Your task to perform on an android device: When is my next meeting? Image 0: 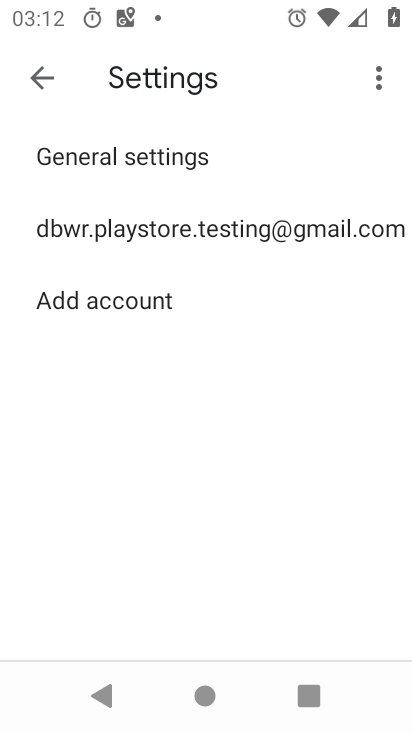
Step 0: press home button
Your task to perform on an android device: When is my next meeting? Image 1: 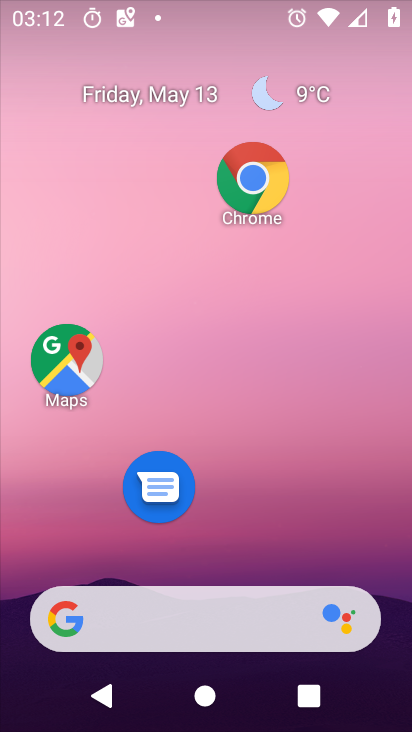
Step 1: drag from (299, 528) to (283, 96)
Your task to perform on an android device: When is my next meeting? Image 2: 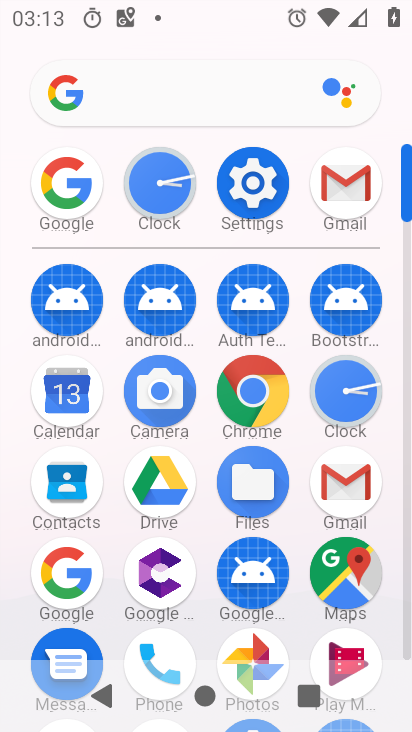
Step 2: click (66, 397)
Your task to perform on an android device: When is my next meeting? Image 3: 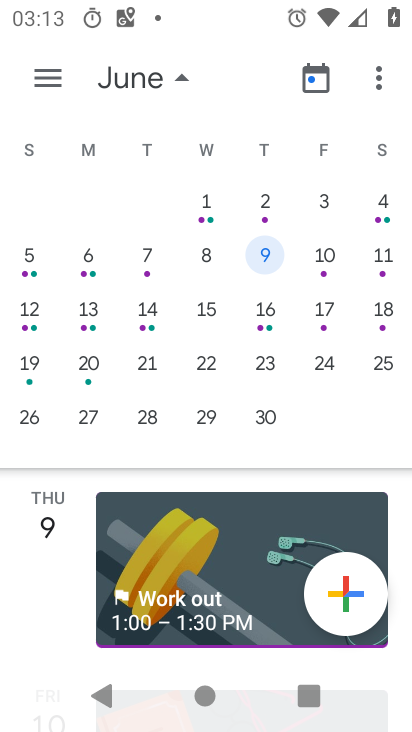
Step 3: click (258, 311)
Your task to perform on an android device: When is my next meeting? Image 4: 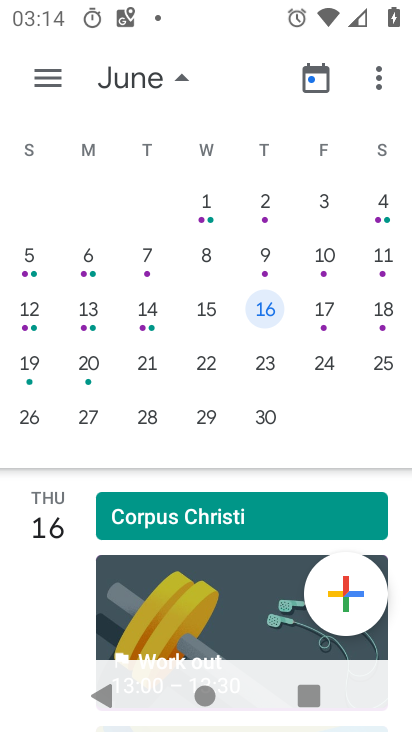
Step 4: task complete